Your task to perform on an android device: turn on showing notifications on the lock screen Image 0: 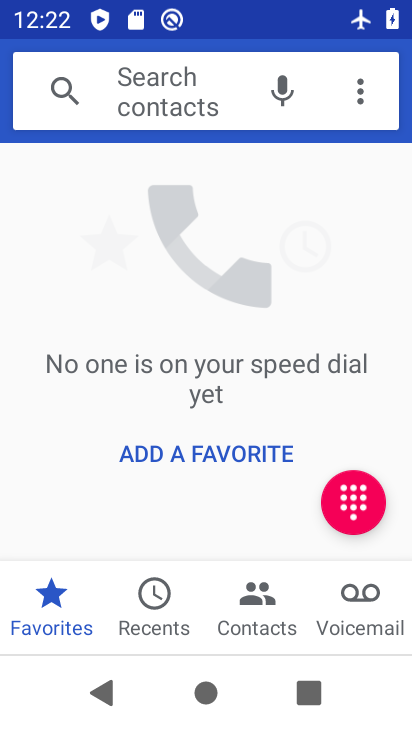
Step 0: press home button
Your task to perform on an android device: turn on showing notifications on the lock screen Image 1: 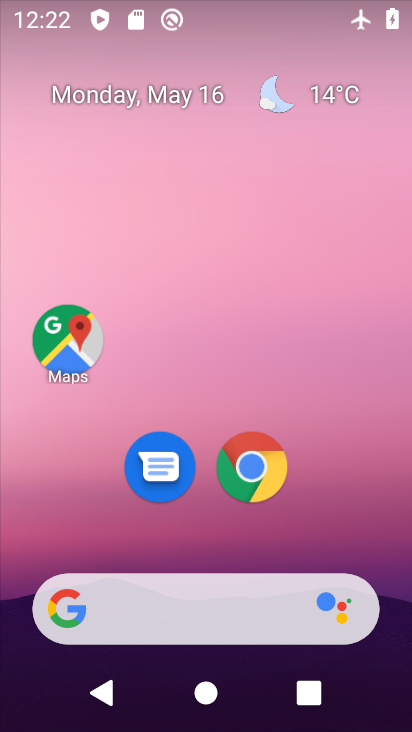
Step 1: drag from (261, 532) to (297, 177)
Your task to perform on an android device: turn on showing notifications on the lock screen Image 2: 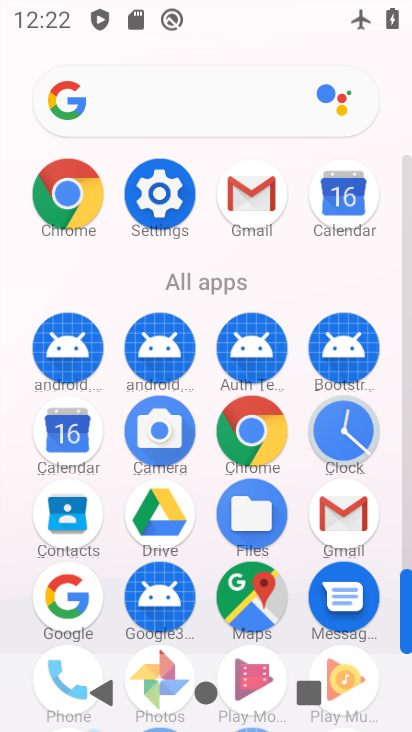
Step 2: click (170, 203)
Your task to perform on an android device: turn on showing notifications on the lock screen Image 3: 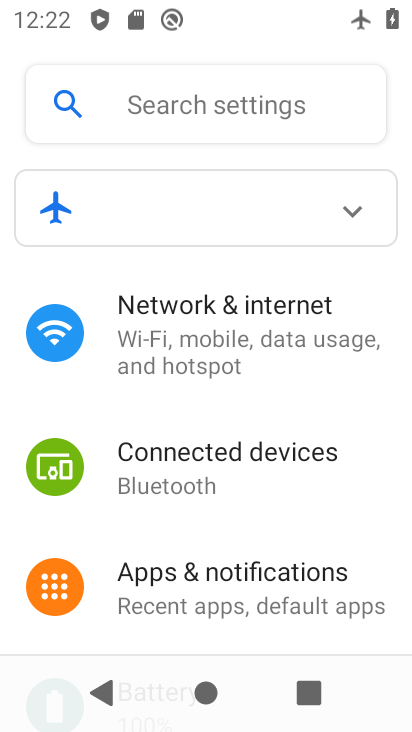
Step 3: click (234, 566)
Your task to perform on an android device: turn on showing notifications on the lock screen Image 4: 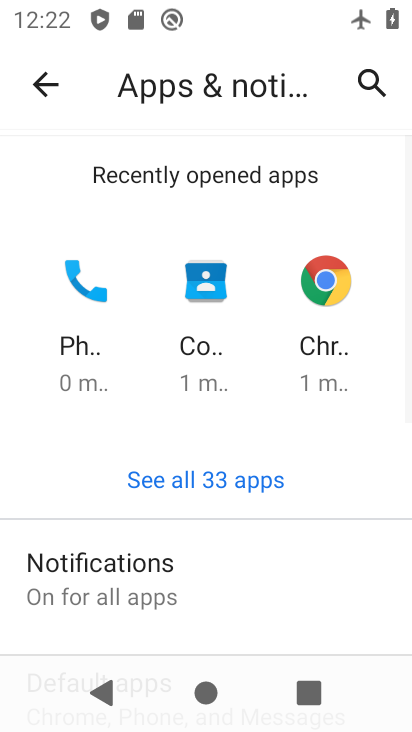
Step 4: drag from (300, 485) to (348, 205)
Your task to perform on an android device: turn on showing notifications on the lock screen Image 5: 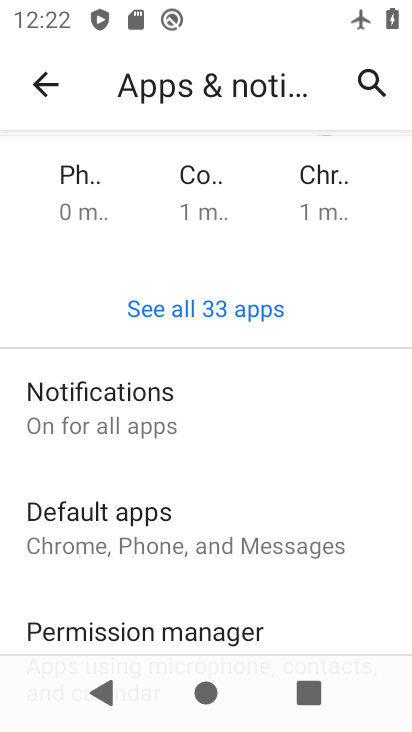
Step 5: click (113, 418)
Your task to perform on an android device: turn on showing notifications on the lock screen Image 6: 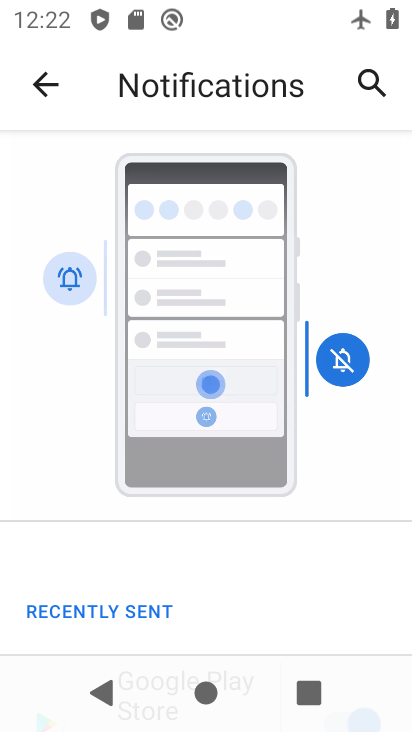
Step 6: drag from (274, 567) to (299, 161)
Your task to perform on an android device: turn on showing notifications on the lock screen Image 7: 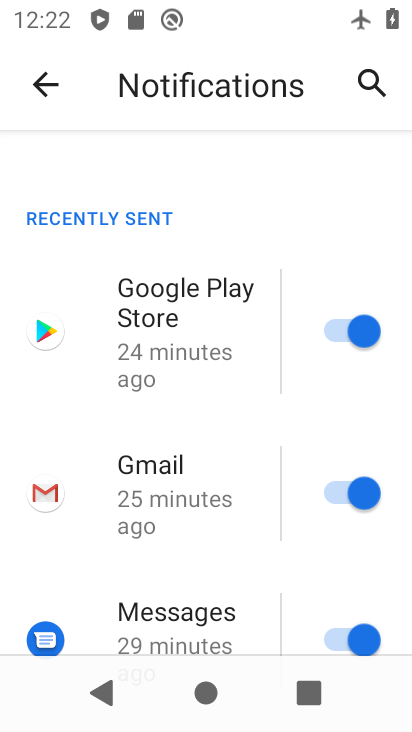
Step 7: drag from (152, 501) to (258, 169)
Your task to perform on an android device: turn on showing notifications on the lock screen Image 8: 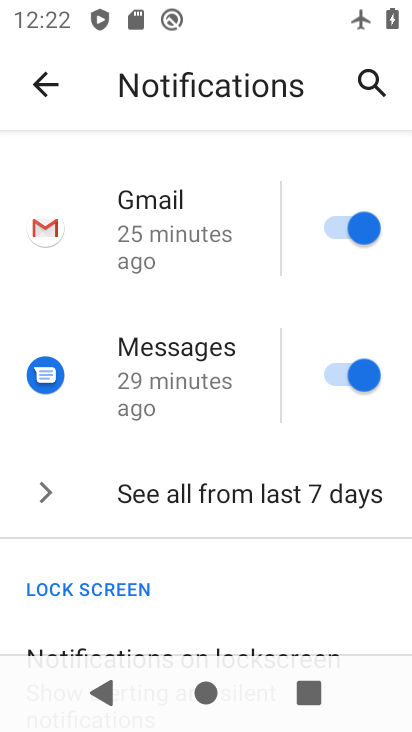
Step 8: drag from (154, 579) to (197, 151)
Your task to perform on an android device: turn on showing notifications on the lock screen Image 9: 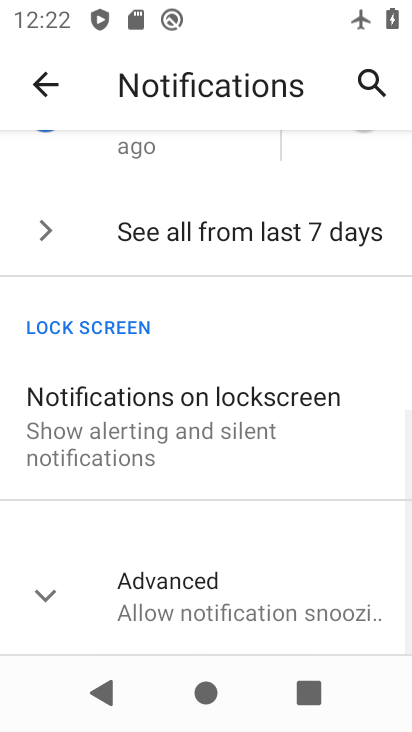
Step 9: click (90, 430)
Your task to perform on an android device: turn on showing notifications on the lock screen Image 10: 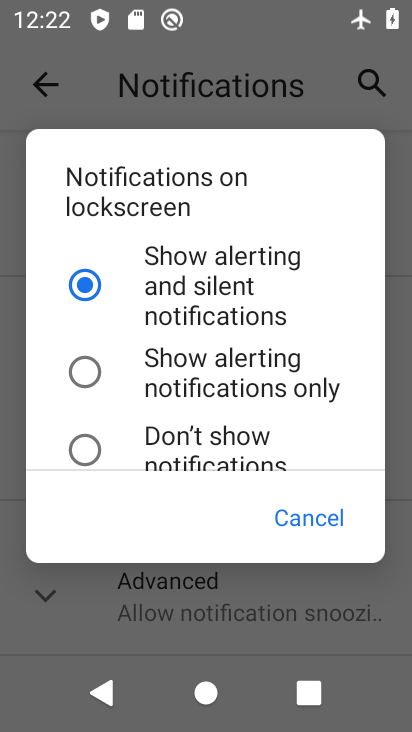
Step 10: click (166, 358)
Your task to perform on an android device: turn on showing notifications on the lock screen Image 11: 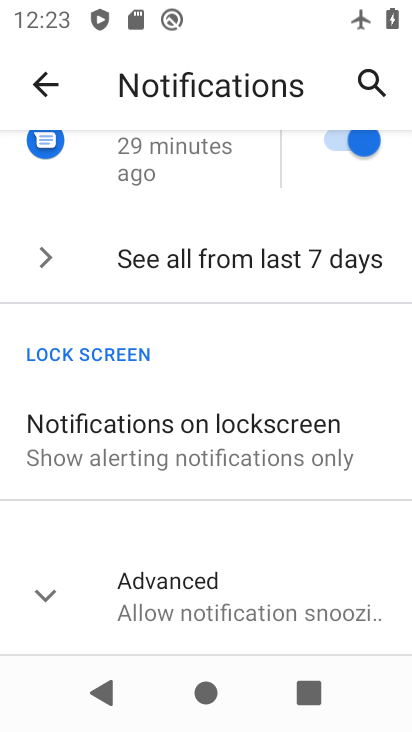
Step 11: task complete